Your task to perform on an android device: move a message to another label in the gmail app Image 0: 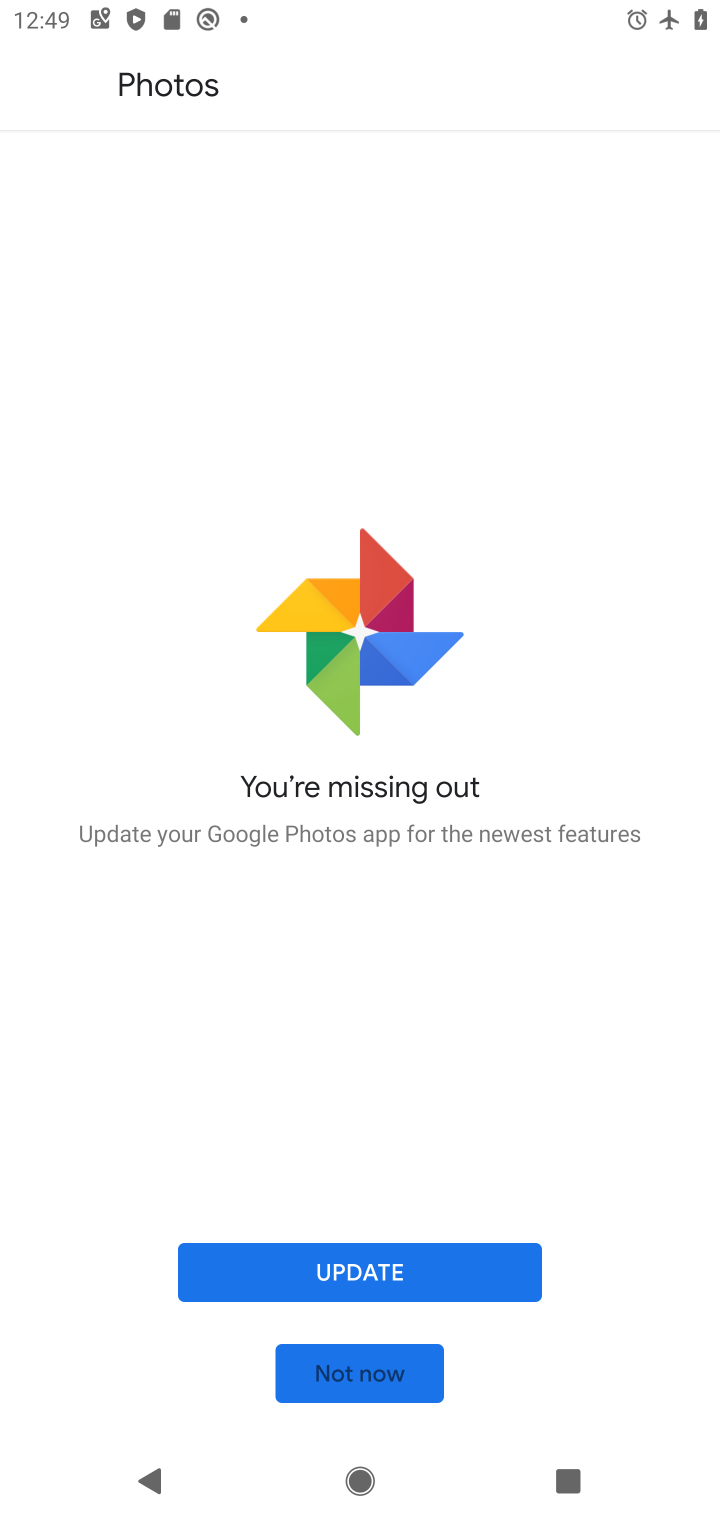
Step 0: press home button
Your task to perform on an android device: move a message to another label in the gmail app Image 1: 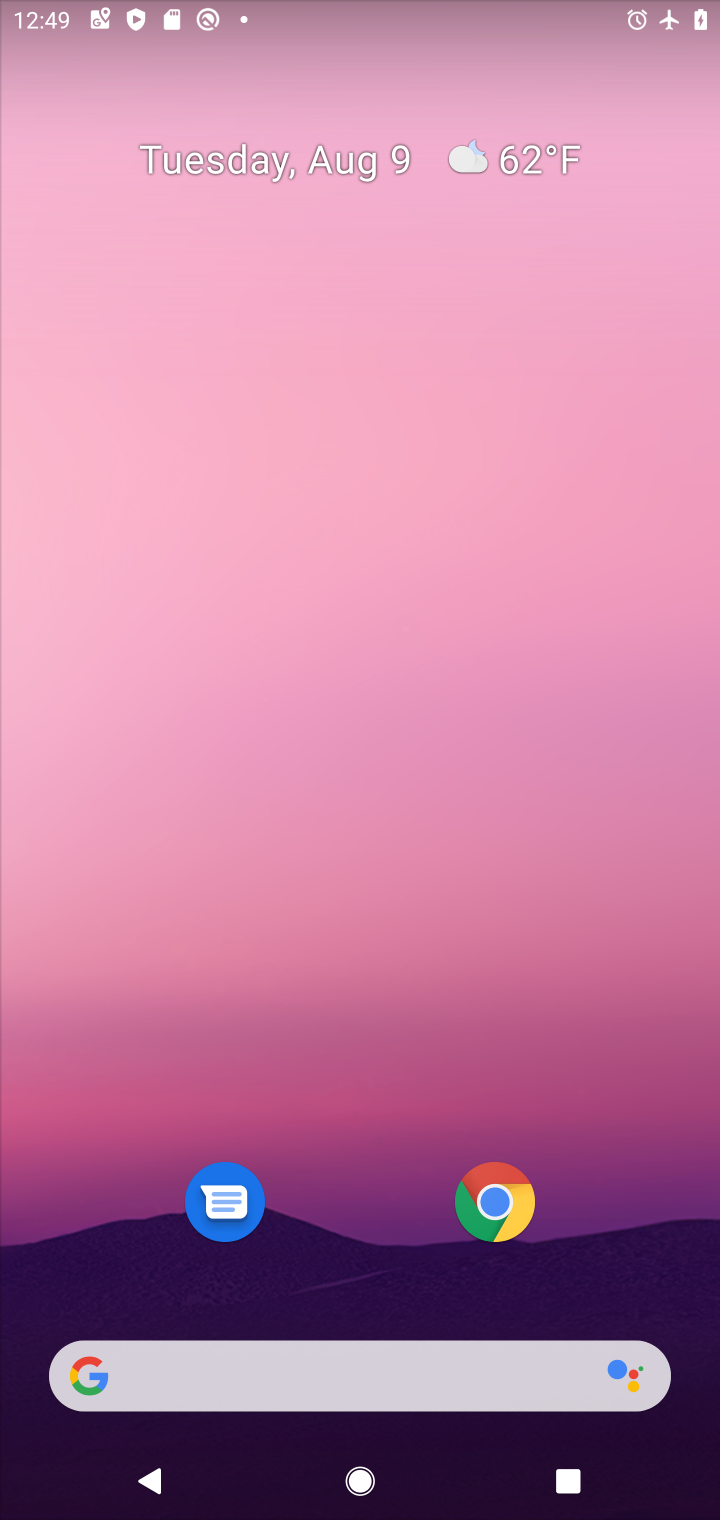
Step 1: drag from (294, 978) to (260, 93)
Your task to perform on an android device: move a message to another label in the gmail app Image 2: 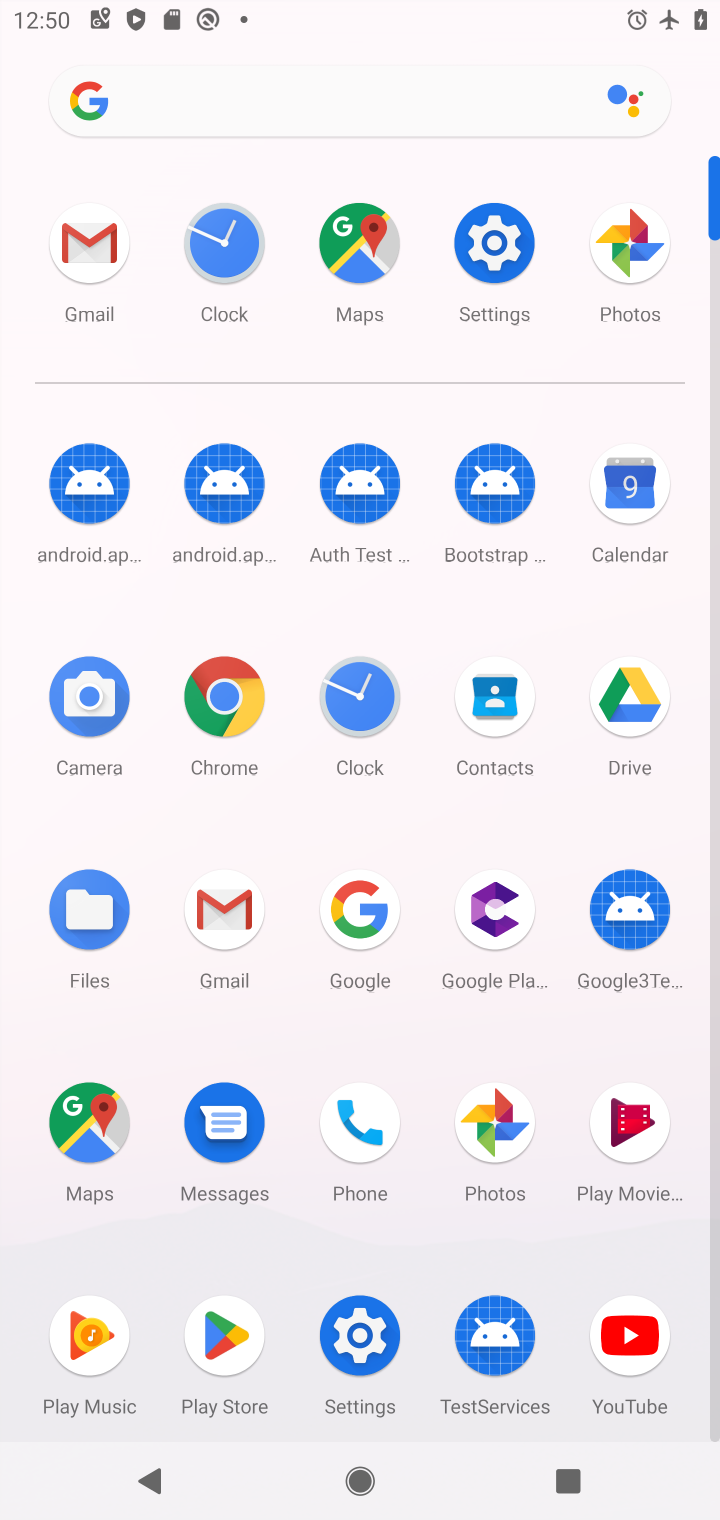
Step 2: click (73, 238)
Your task to perform on an android device: move a message to another label in the gmail app Image 3: 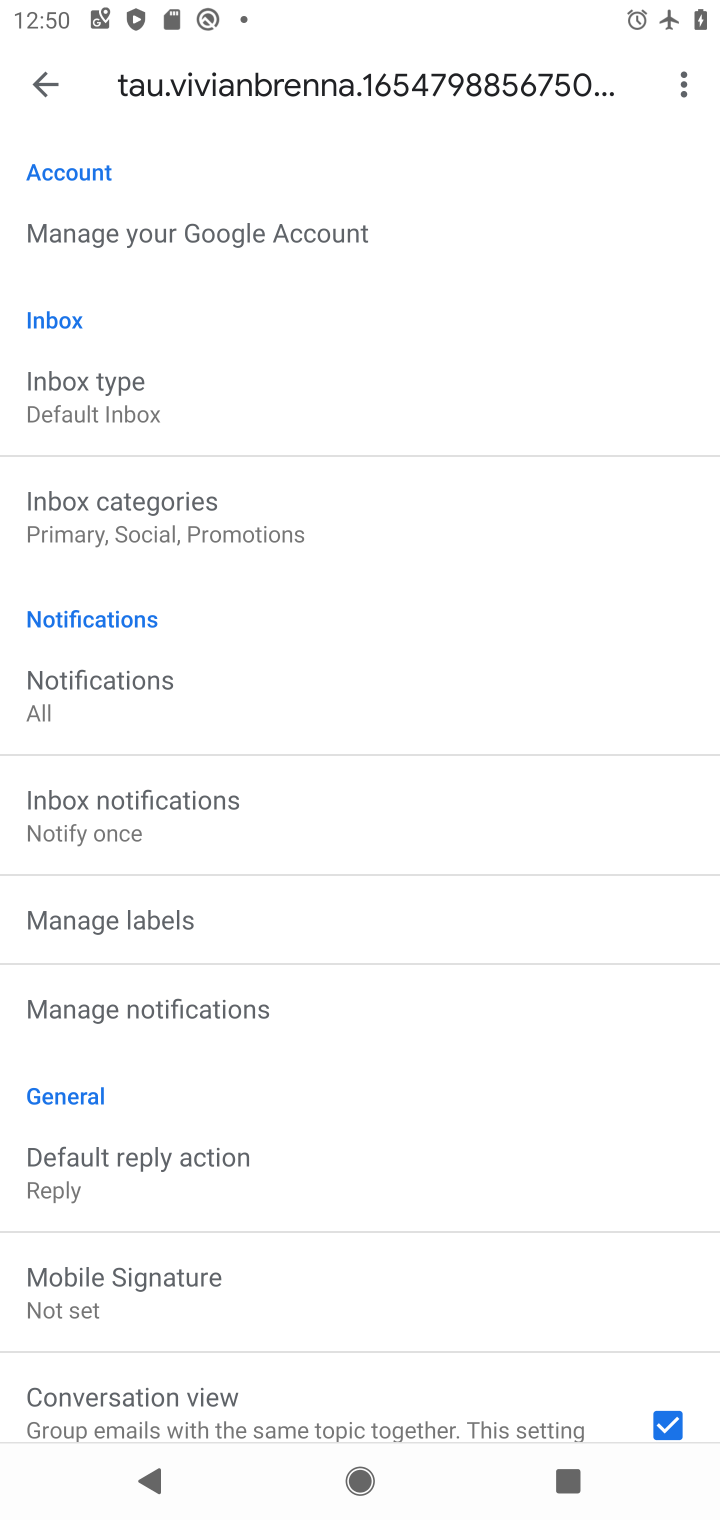
Step 3: click (36, 82)
Your task to perform on an android device: move a message to another label in the gmail app Image 4: 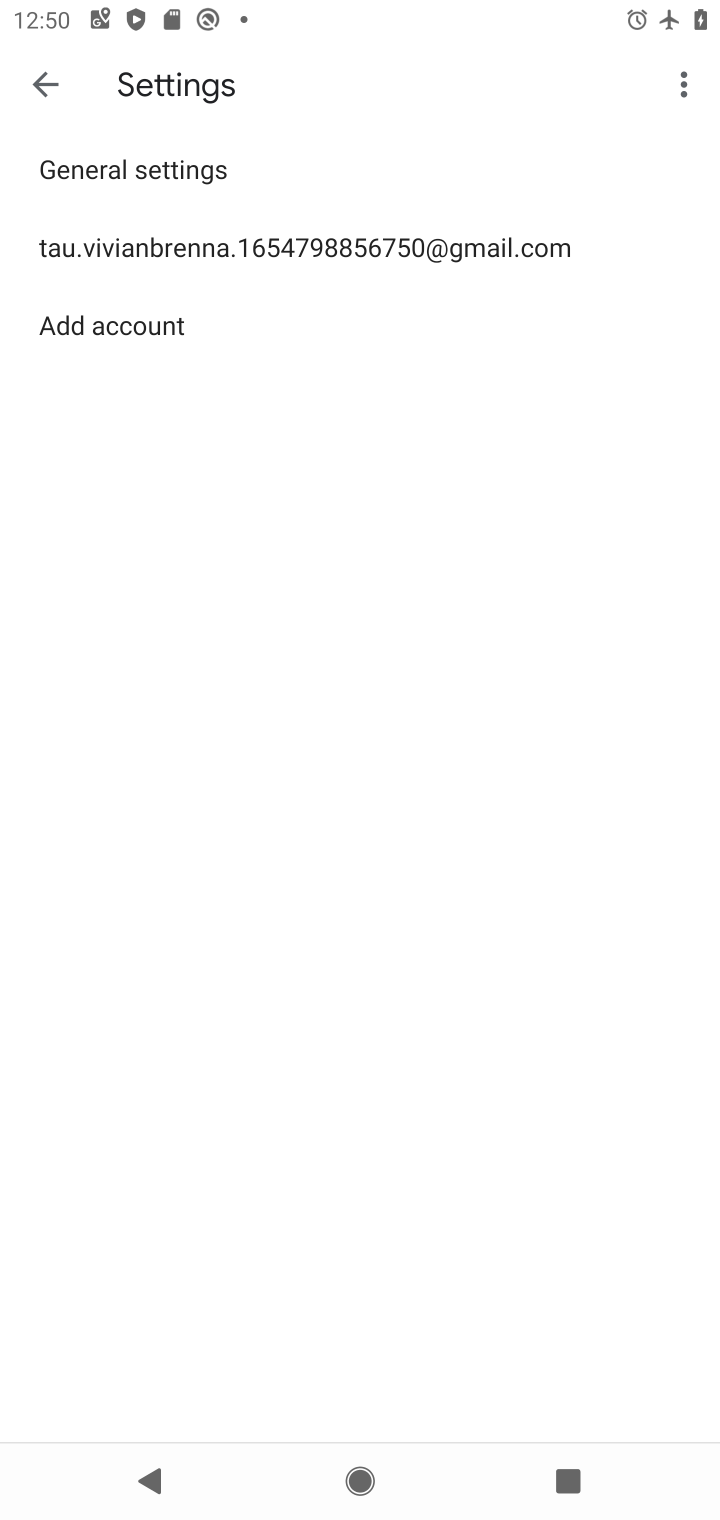
Step 4: click (358, 235)
Your task to perform on an android device: move a message to another label in the gmail app Image 5: 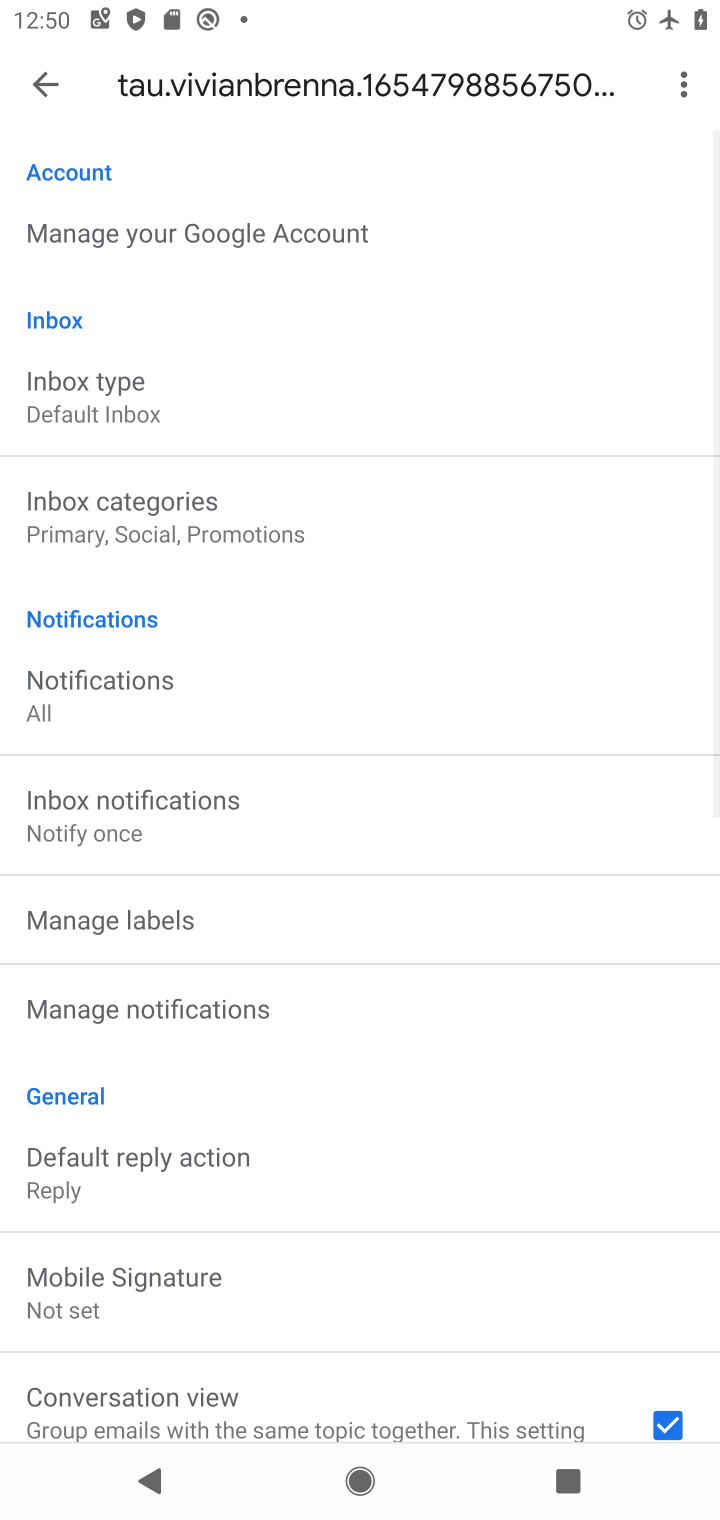
Step 5: click (29, 71)
Your task to perform on an android device: move a message to another label in the gmail app Image 6: 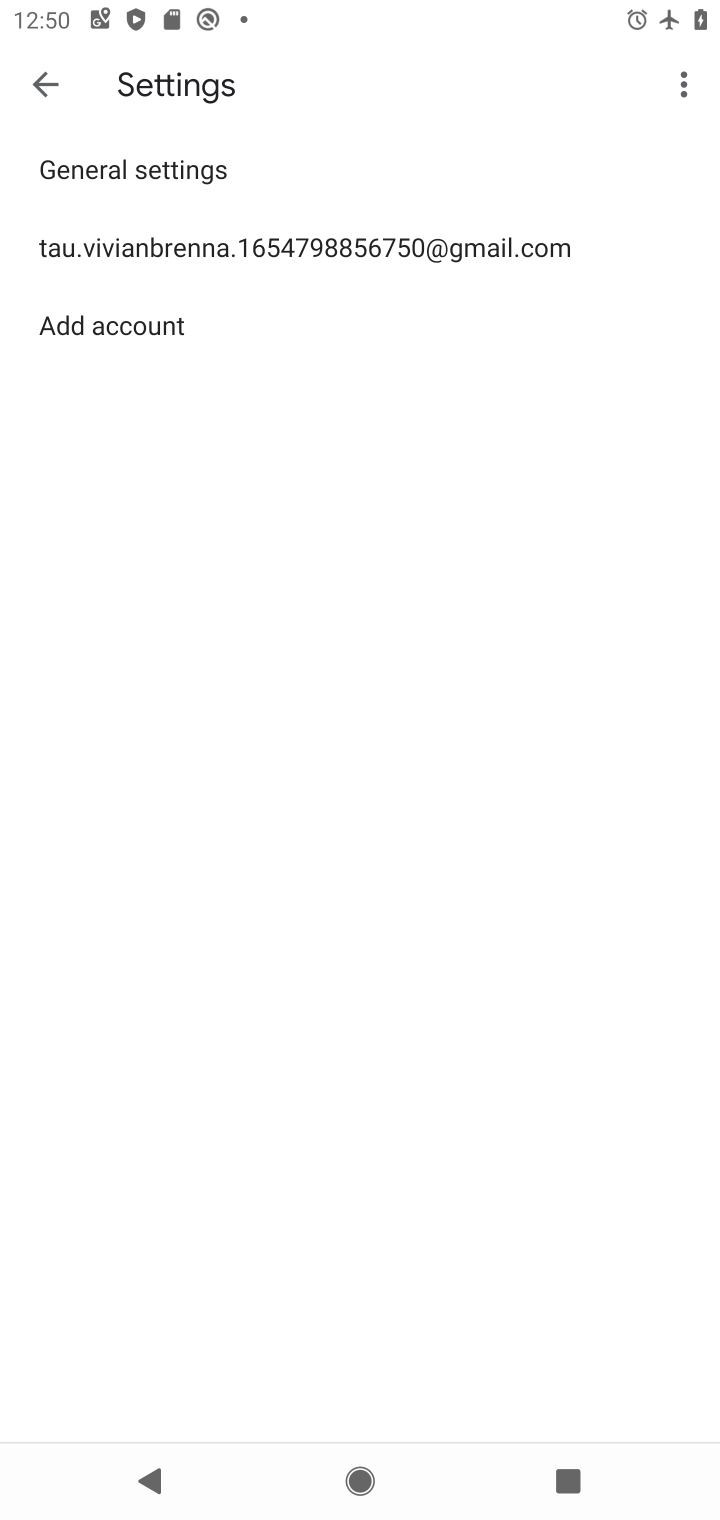
Step 6: click (55, 80)
Your task to perform on an android device: move a message to another label in the gmail app Image 7: 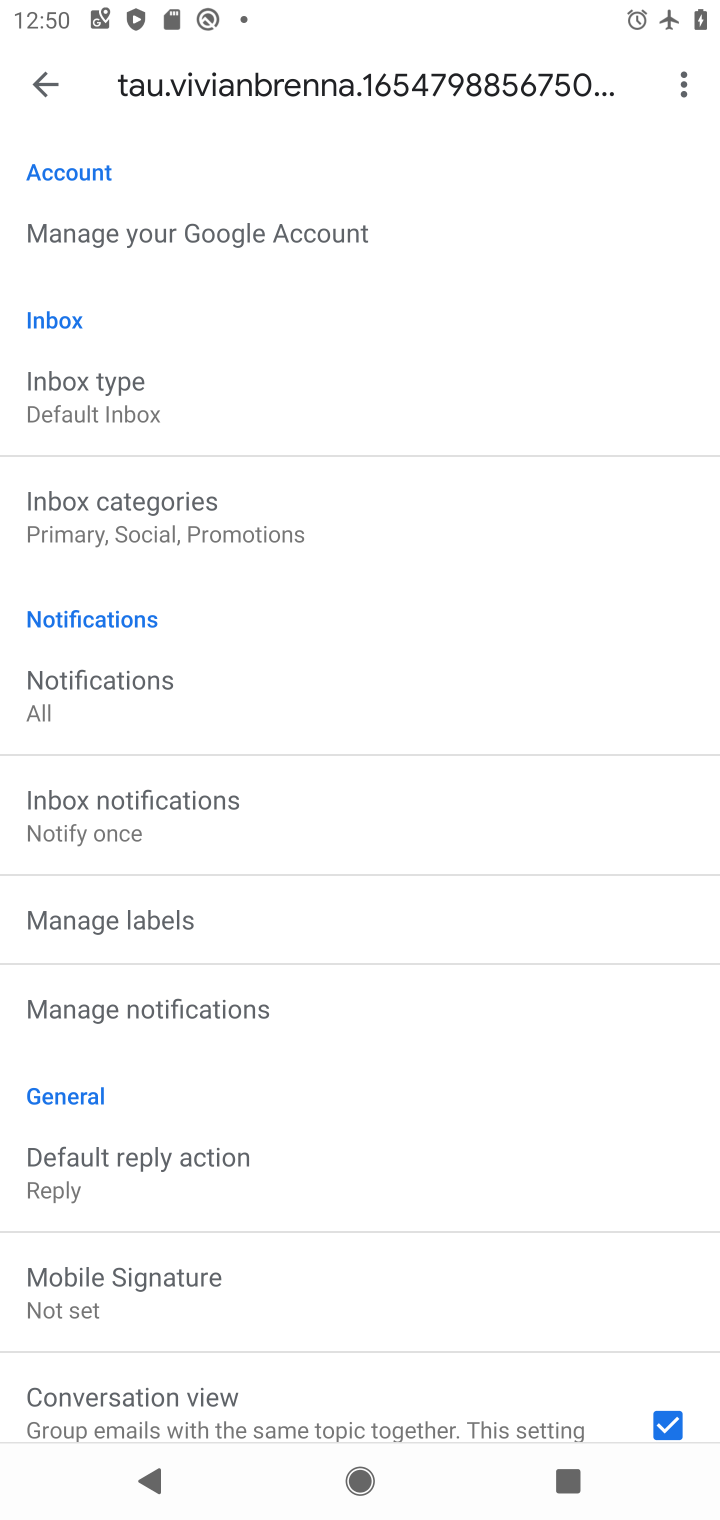
Step 7: click (55, 80)
Your task to perform on an android device: move a message to another label in the gmail app Image 8: 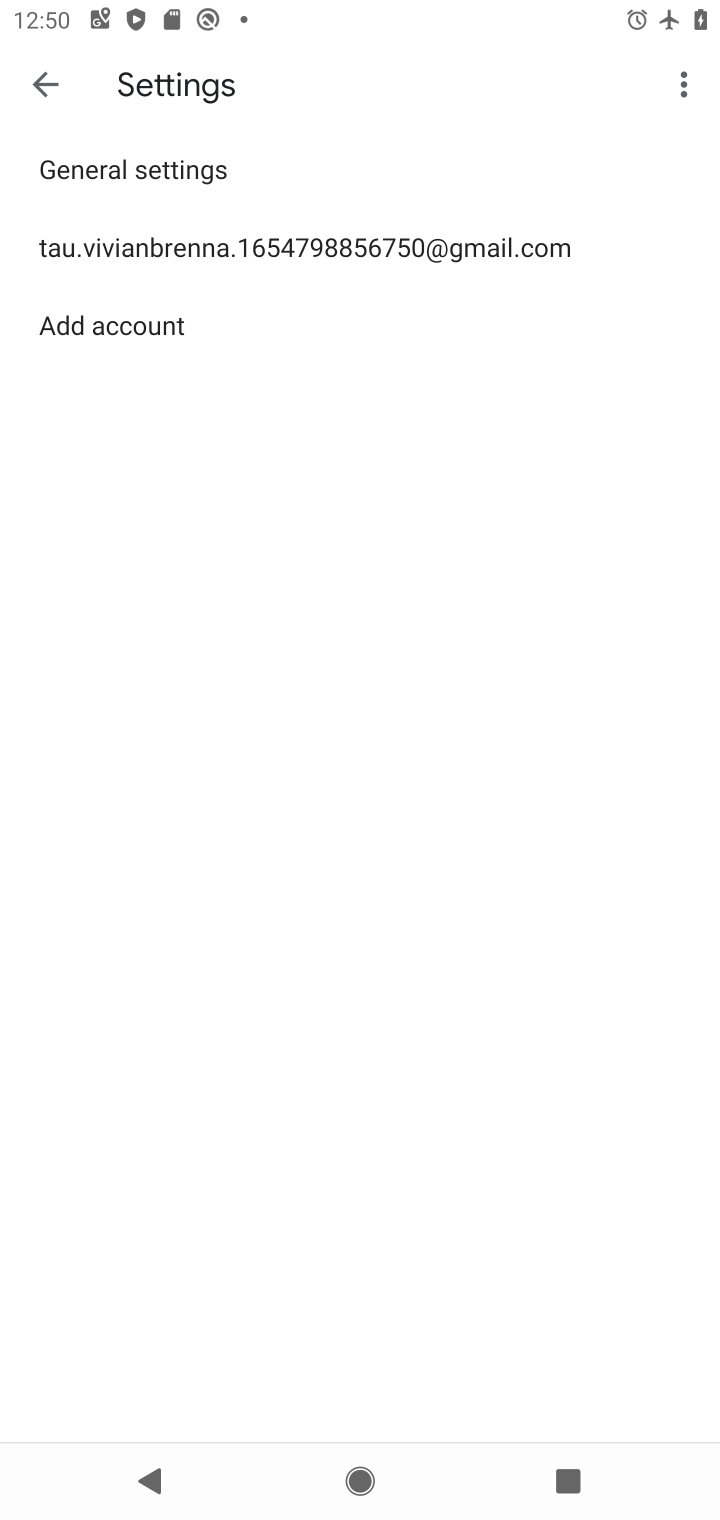
Step 8: click (55, 80)
Your task to perform on an android device: move a message to another label in the gmail app Image 9: 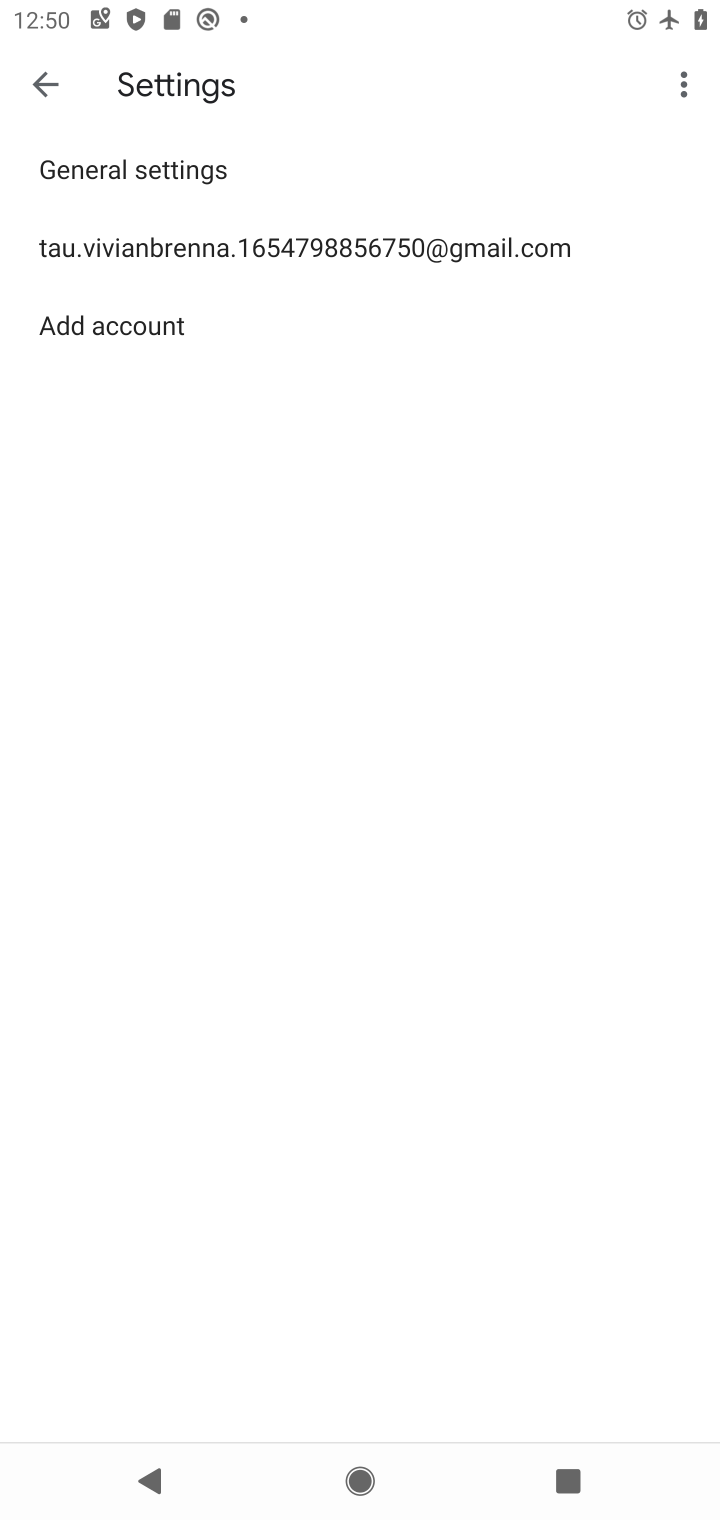
Step 9: click (55, 80)
Your task to perform on an android device: move a message to another label in the gmail app Image 10: 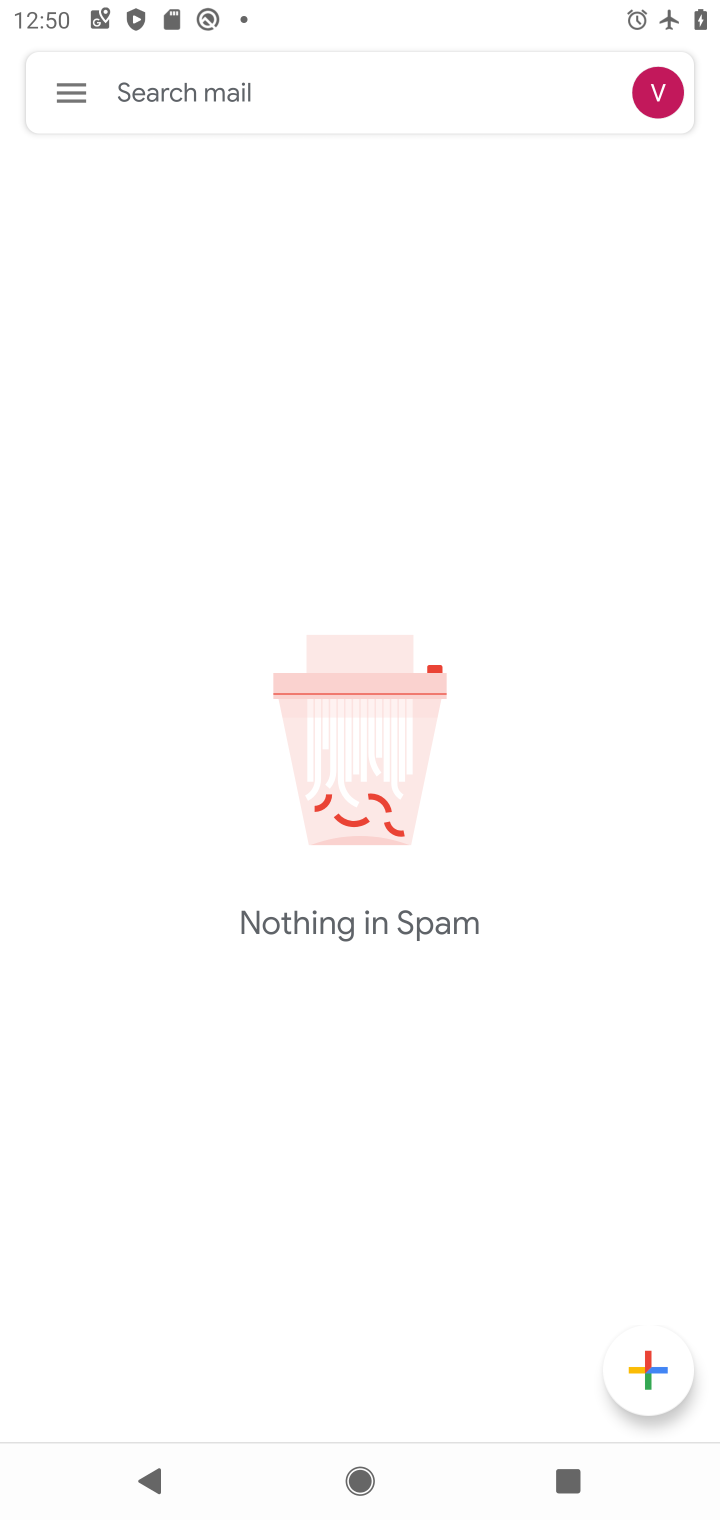
Step 10: click (85, 101)
Your task to perform on an android device: move a message to another label in the gmail app Image 11: 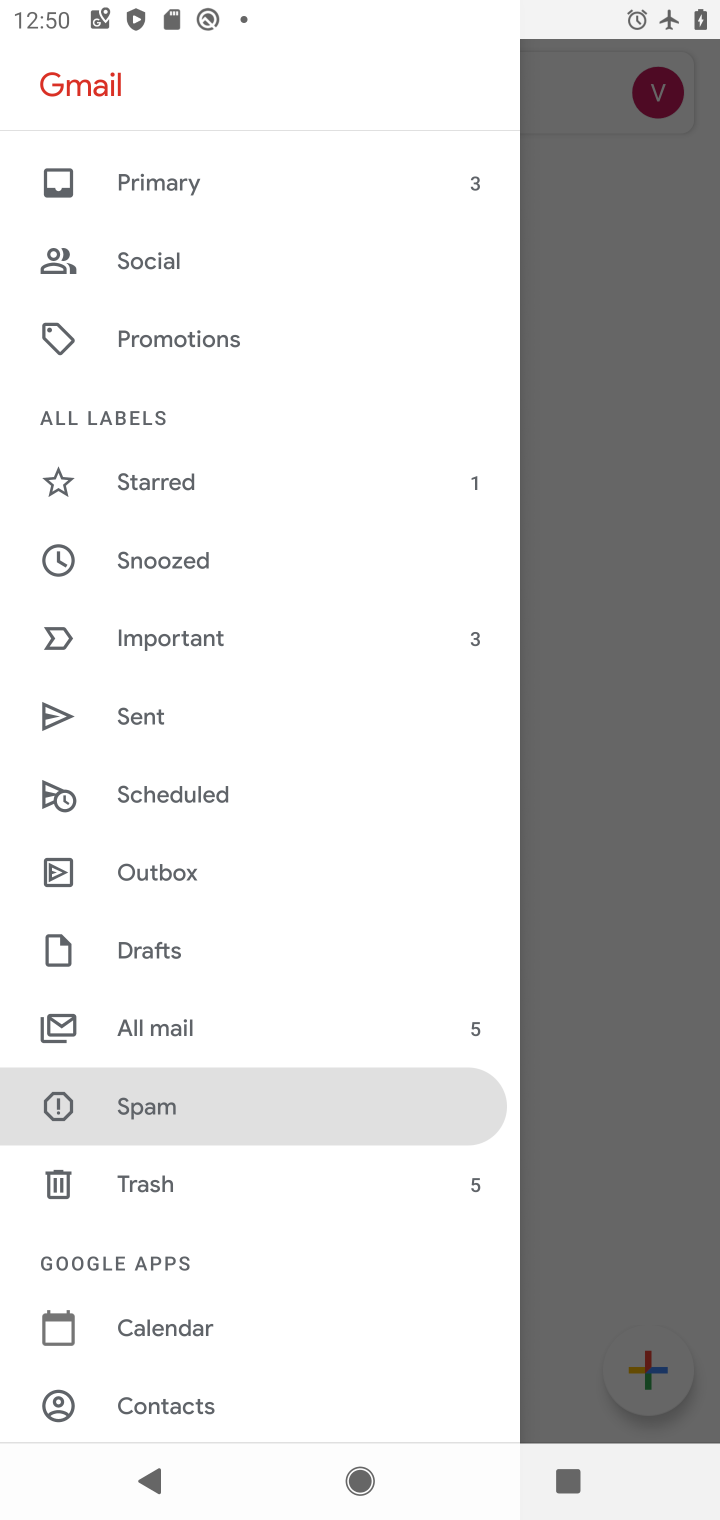
Step 11: click (157, 1030)
Your task to perform on an android device: move a message to another label in the gmail app Image 12: 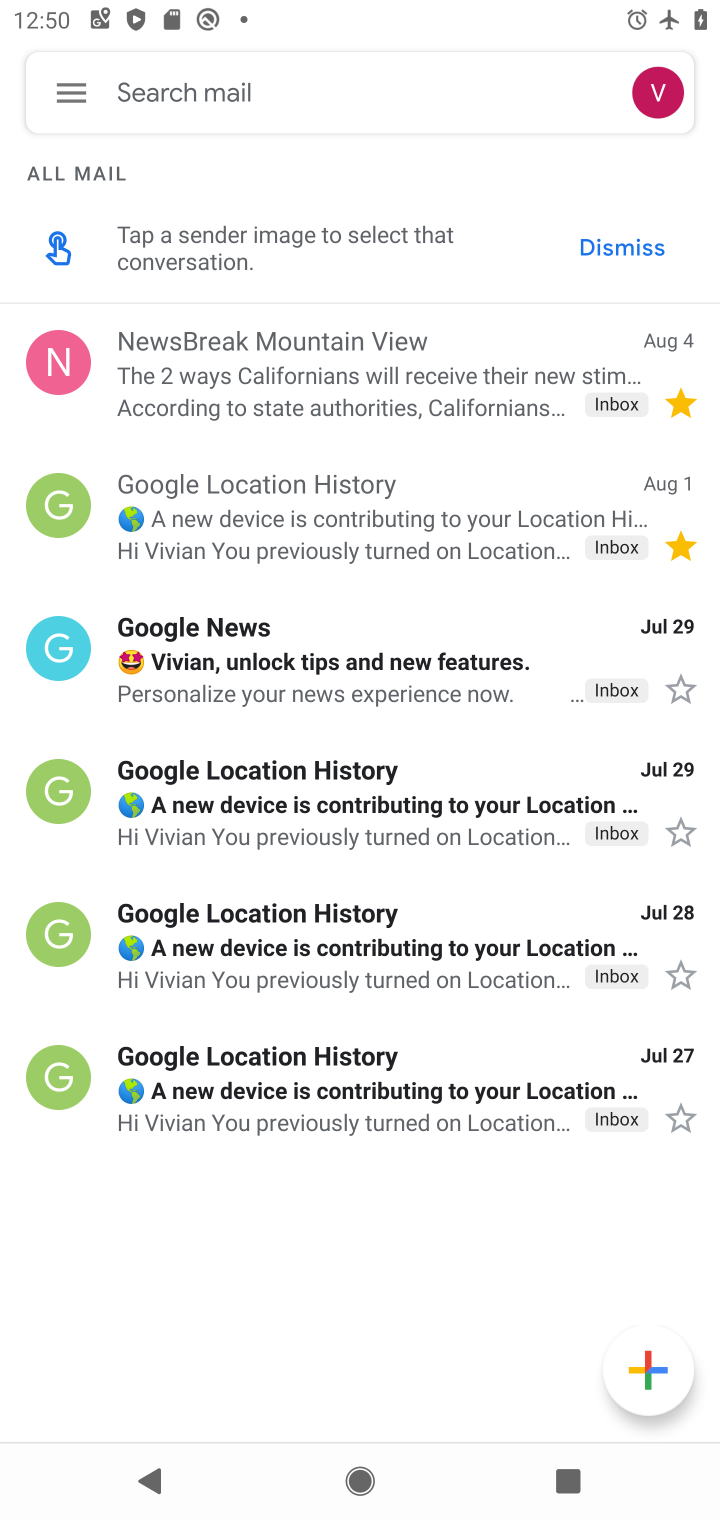
Step 12: click (465, 353)
Your task to perform on an android device: move a message to another label in the gmail app Image 13: 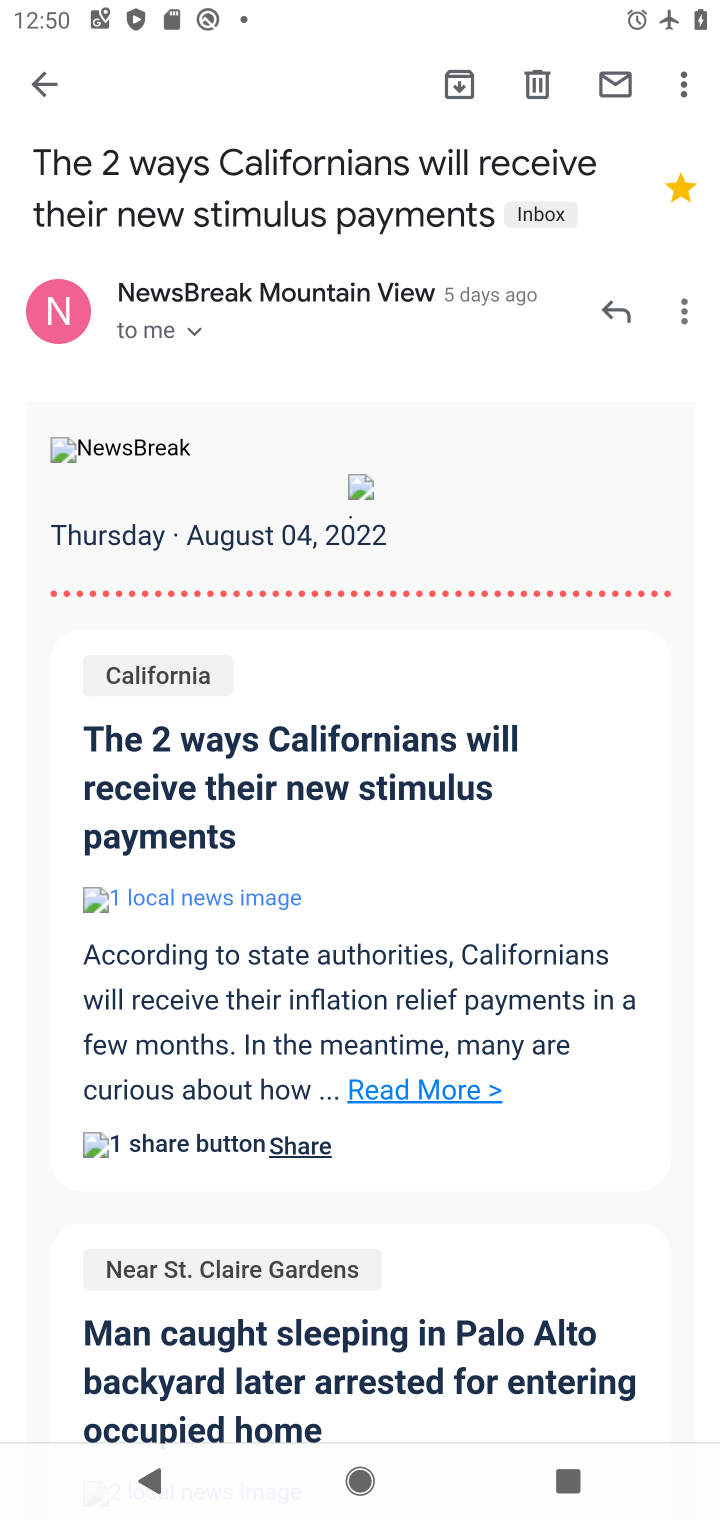
Step 13: click (680, 91)
Your task to perform on an android device: move a message to another label in the gmail app Image 14: 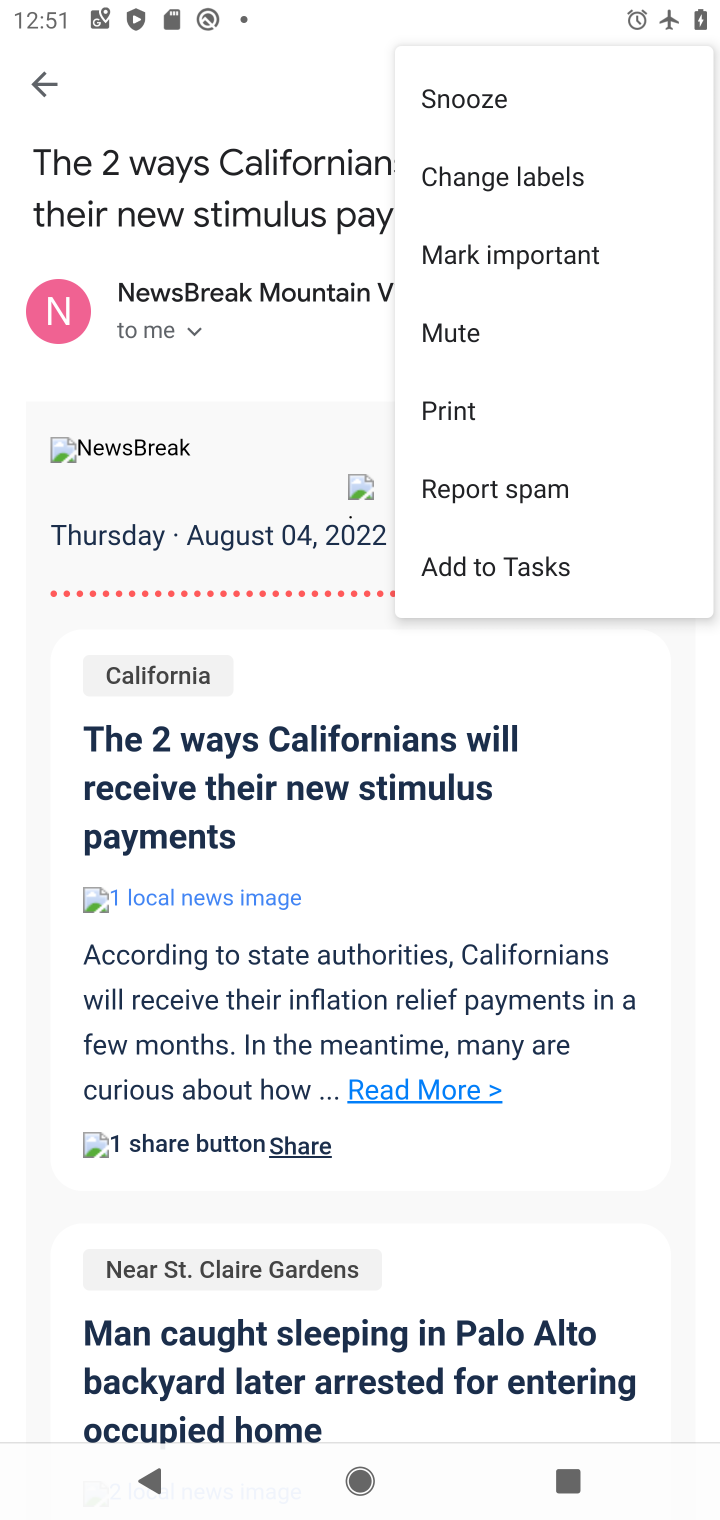
Step 14: click (495, 648)
Your task to perform on an android device: move a message to another label in the gmail app Image 15: 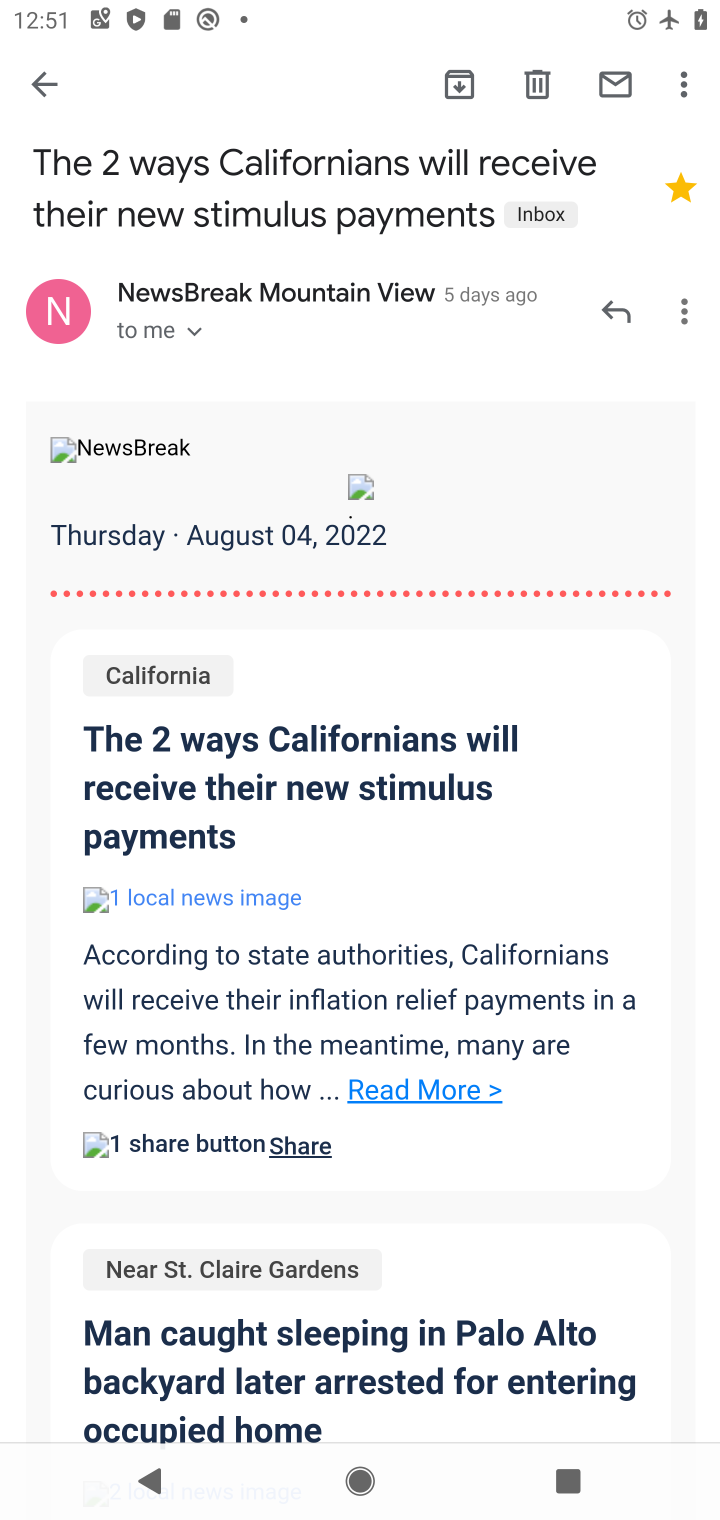
Step 15: click (679, 310)
Your task to perform on an android device: move a message to another label in the gmail app Image 16: 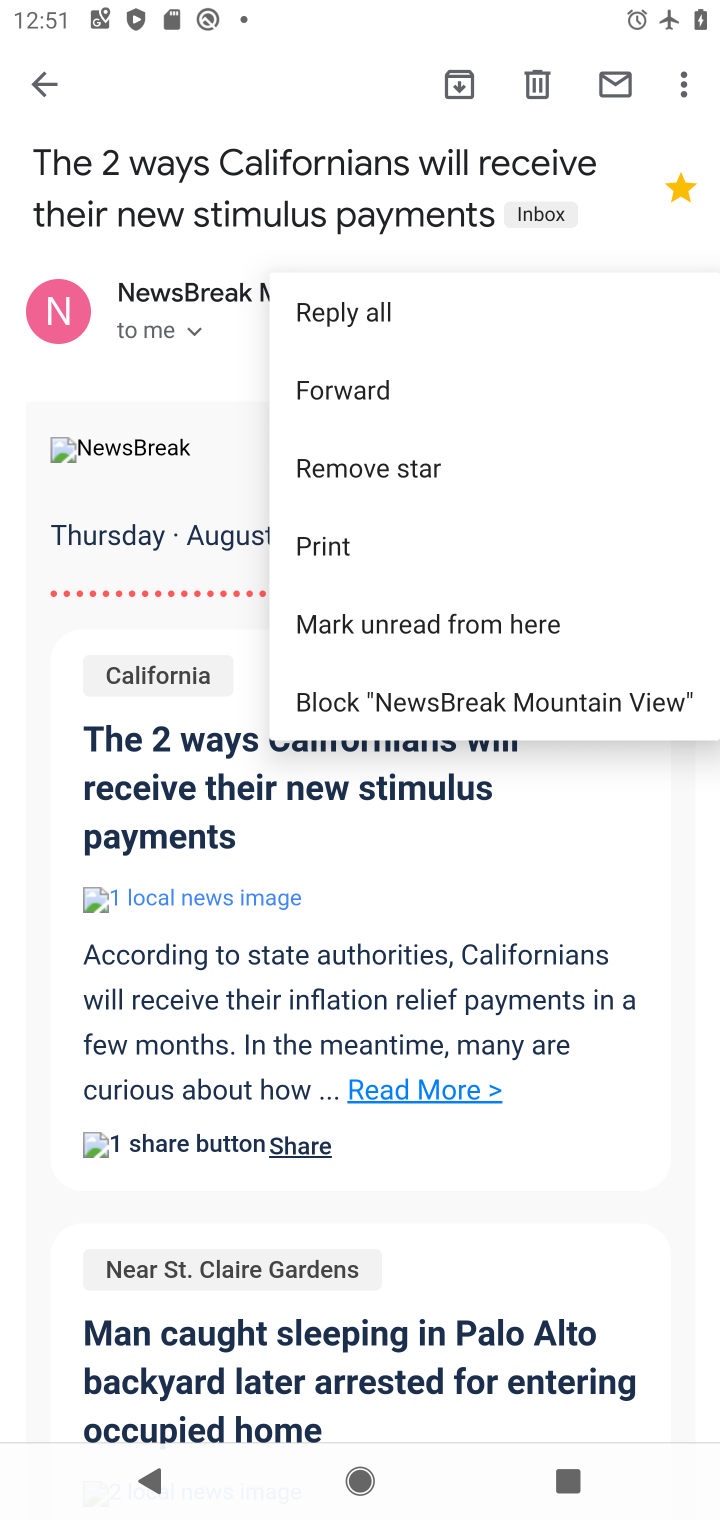
Step 16: click (543, 922)
Your task to perform on an android device: move a message to another label in the gmail app Image 17: 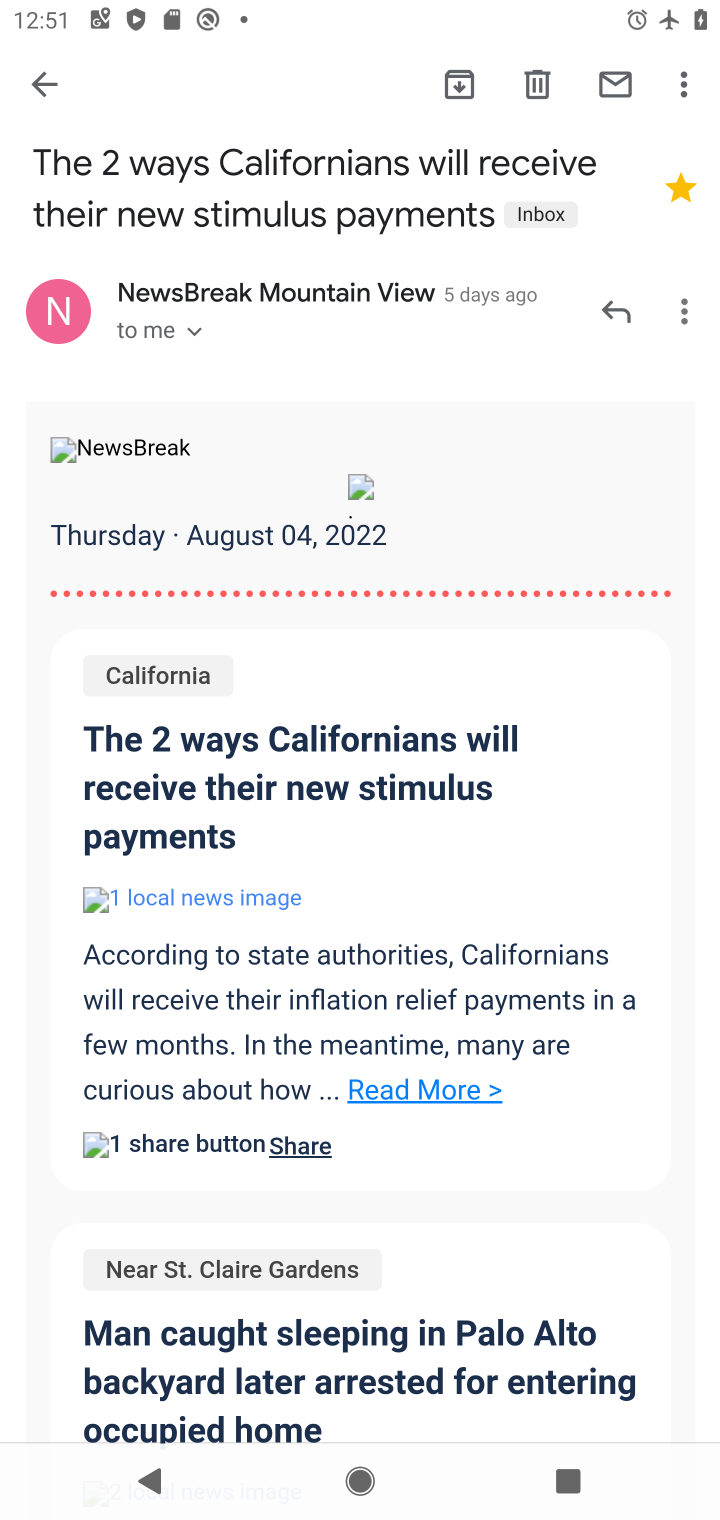
Step 17: click (532, 212)
Your task to perform on an android device: move a message to another label in the gmail app Image 18: 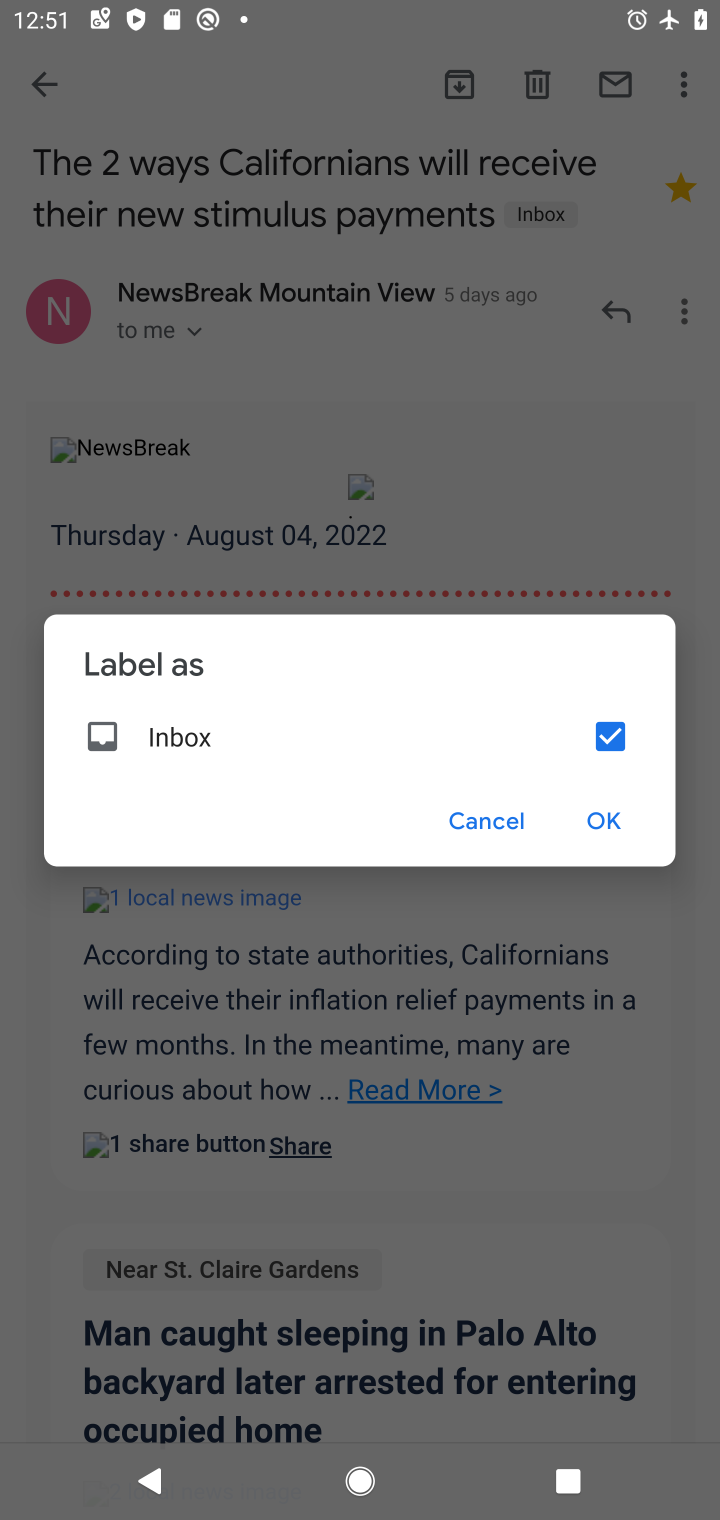
Step 18: click (607, 734)
Your task to perform on an android device: move a message to another label in the gmail app Image 19: 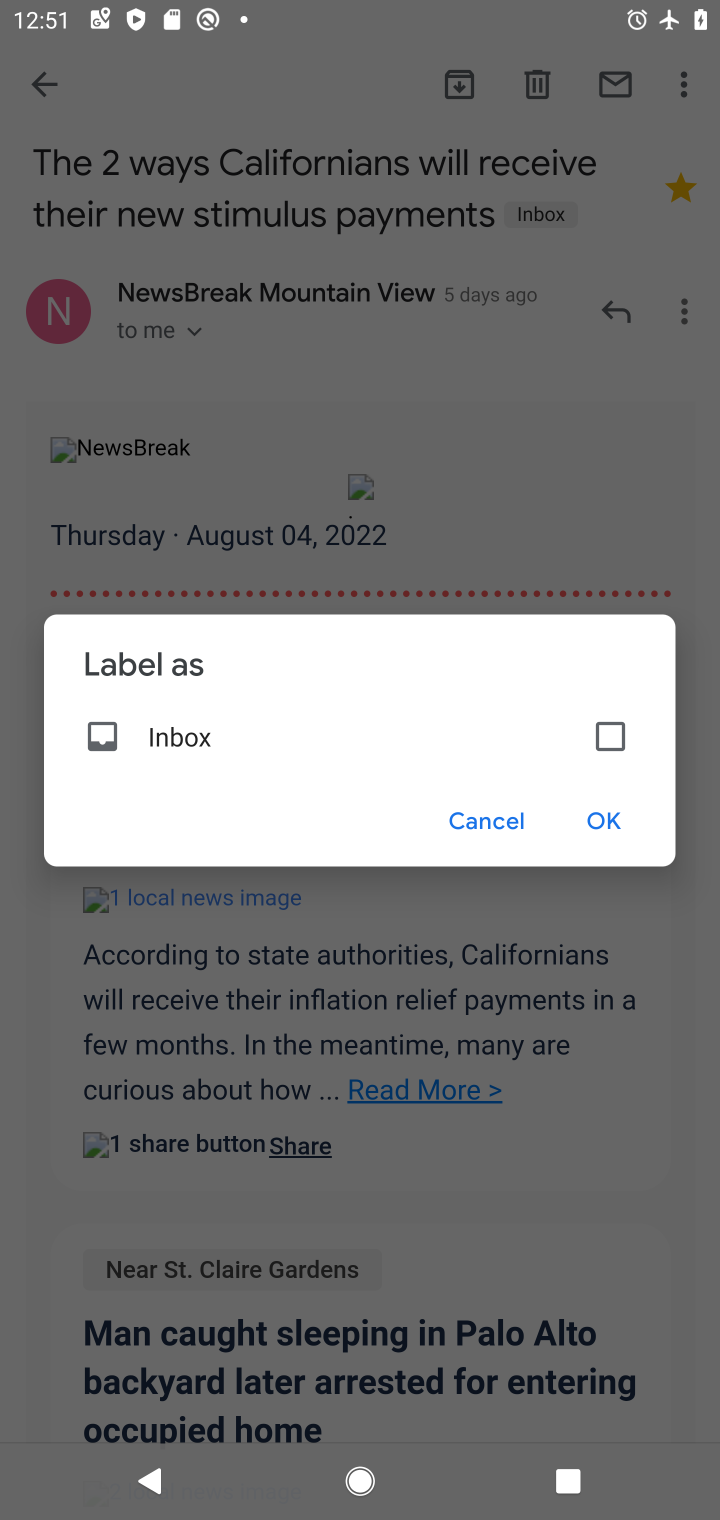
Step 19: click (606, 813)
Your task to perform on an android device: move a message to another label in the gmail app Image 20: 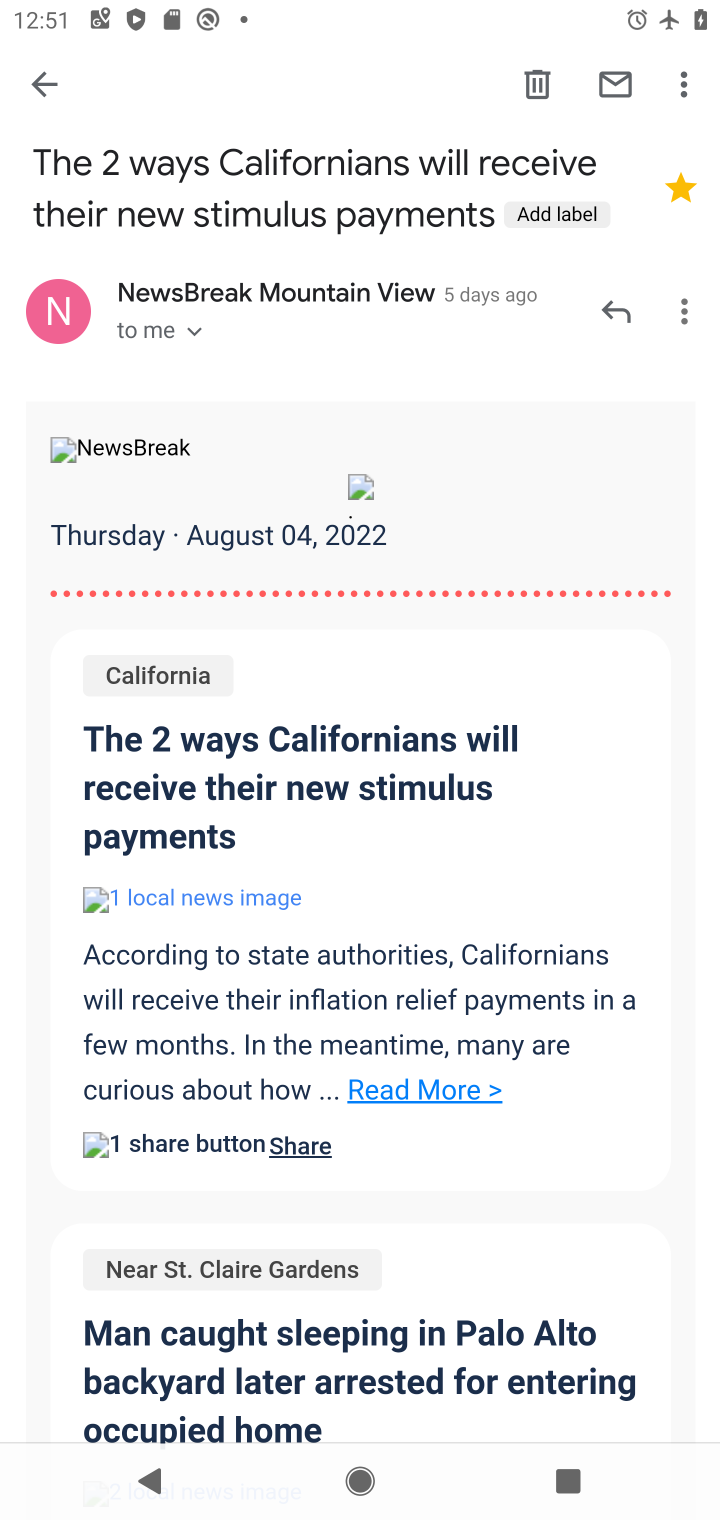
Step 20: task complete